Your task to perform on an android device: Open the calendar and show me this week's events? Image 0: 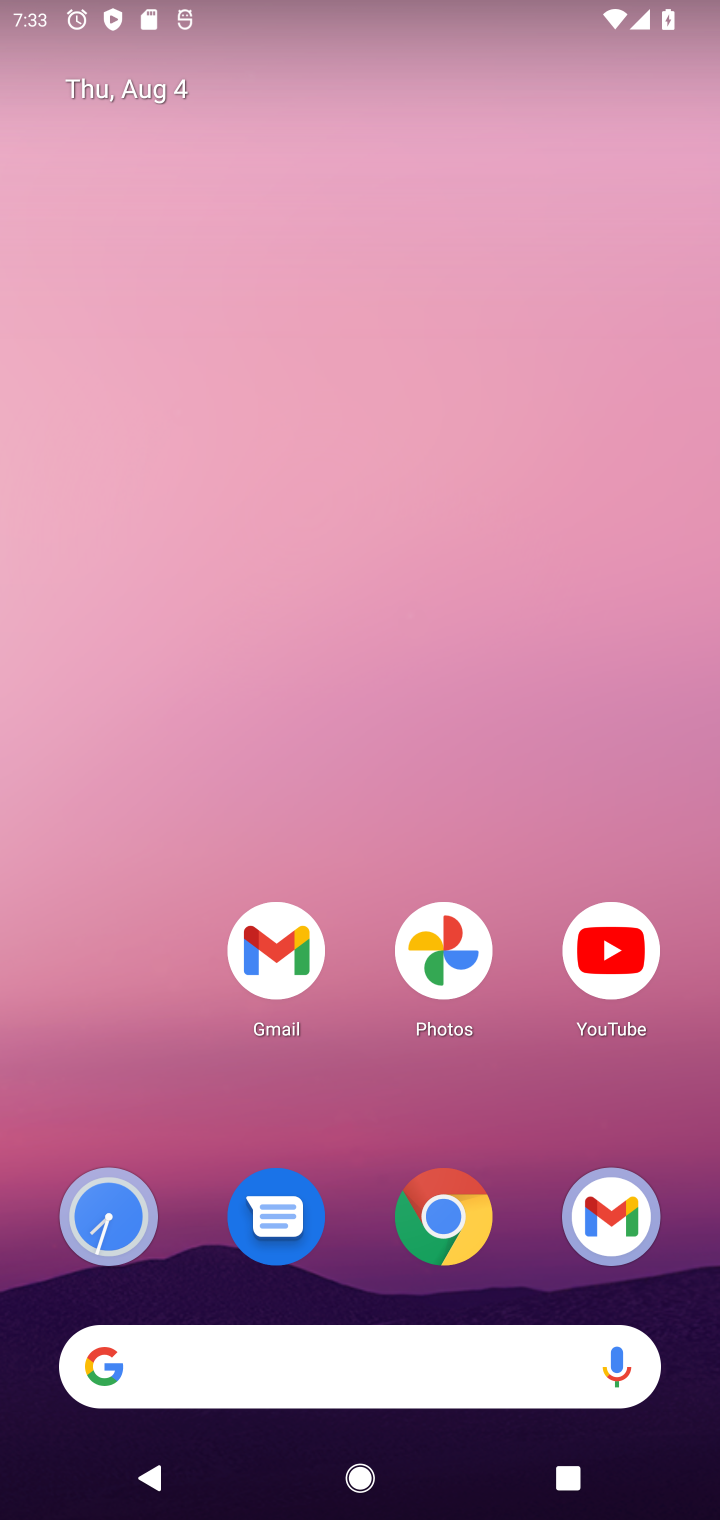
Step 0: drag from (547, 1082) to (505, 262)
Your task to perform on an android device: Open the calendar and show me this week's events? Image 1: 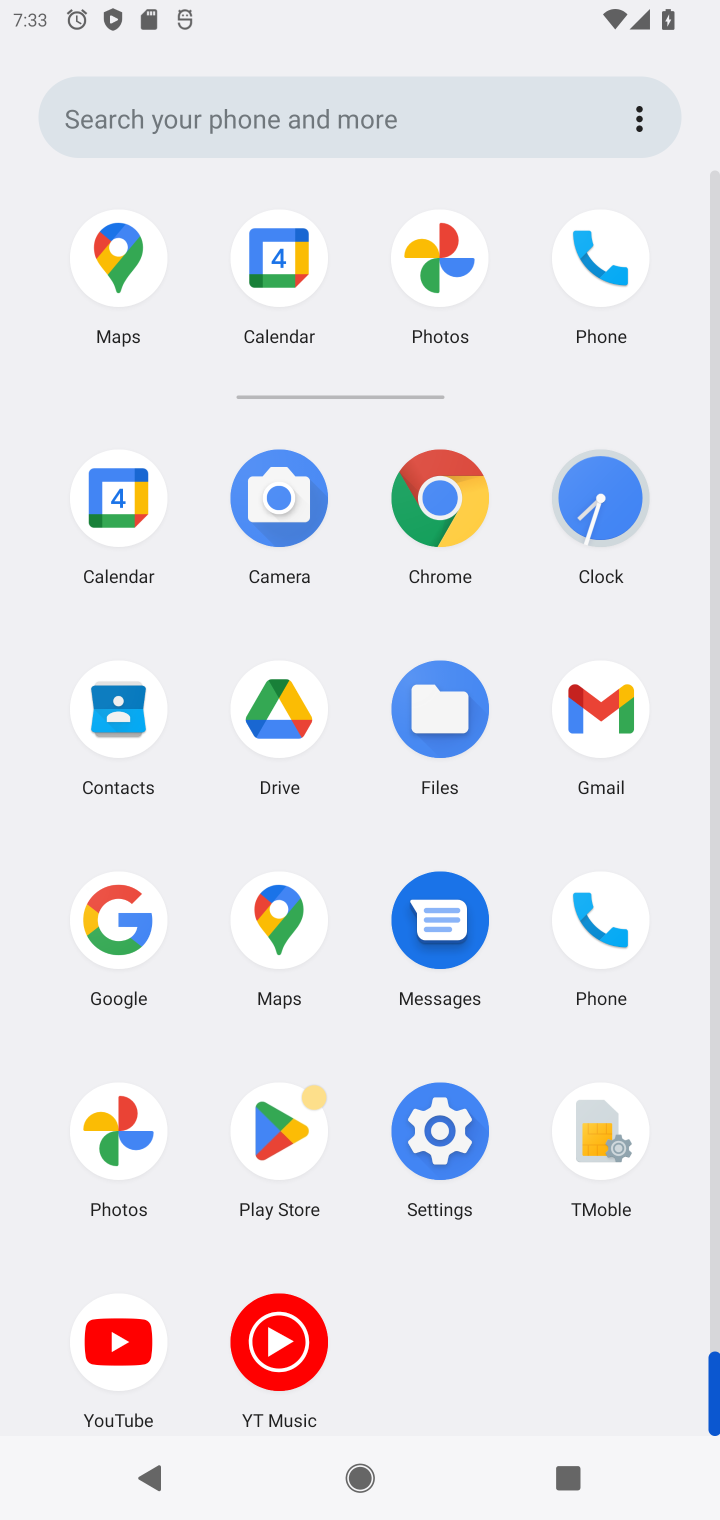
Step 1: click (130, 492)
Your task to perform on an android device: Open the calendar and show me this week's events? Image 2: 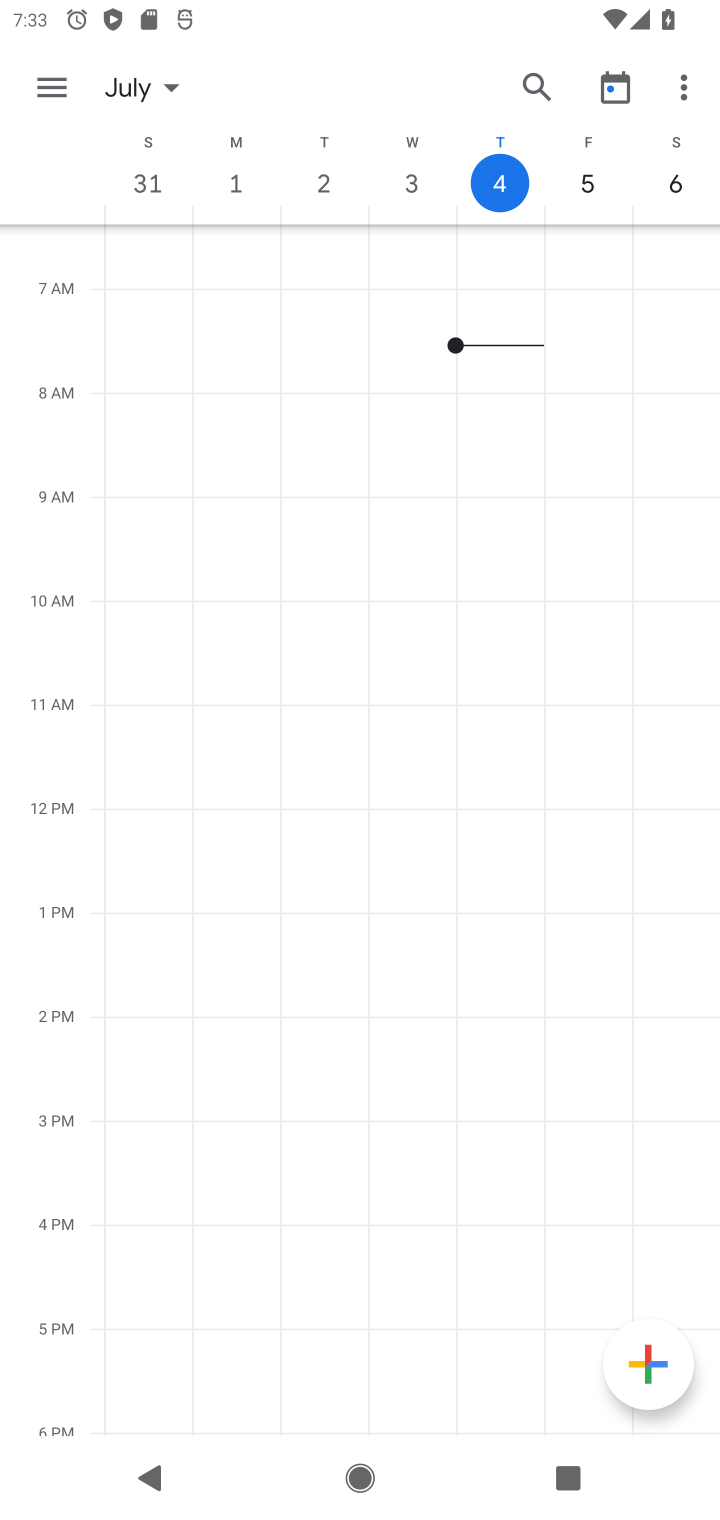
Step 2: click (59, 89)
Your task to perform on an android device: Open the calendar and show me this week's events? Image 3: 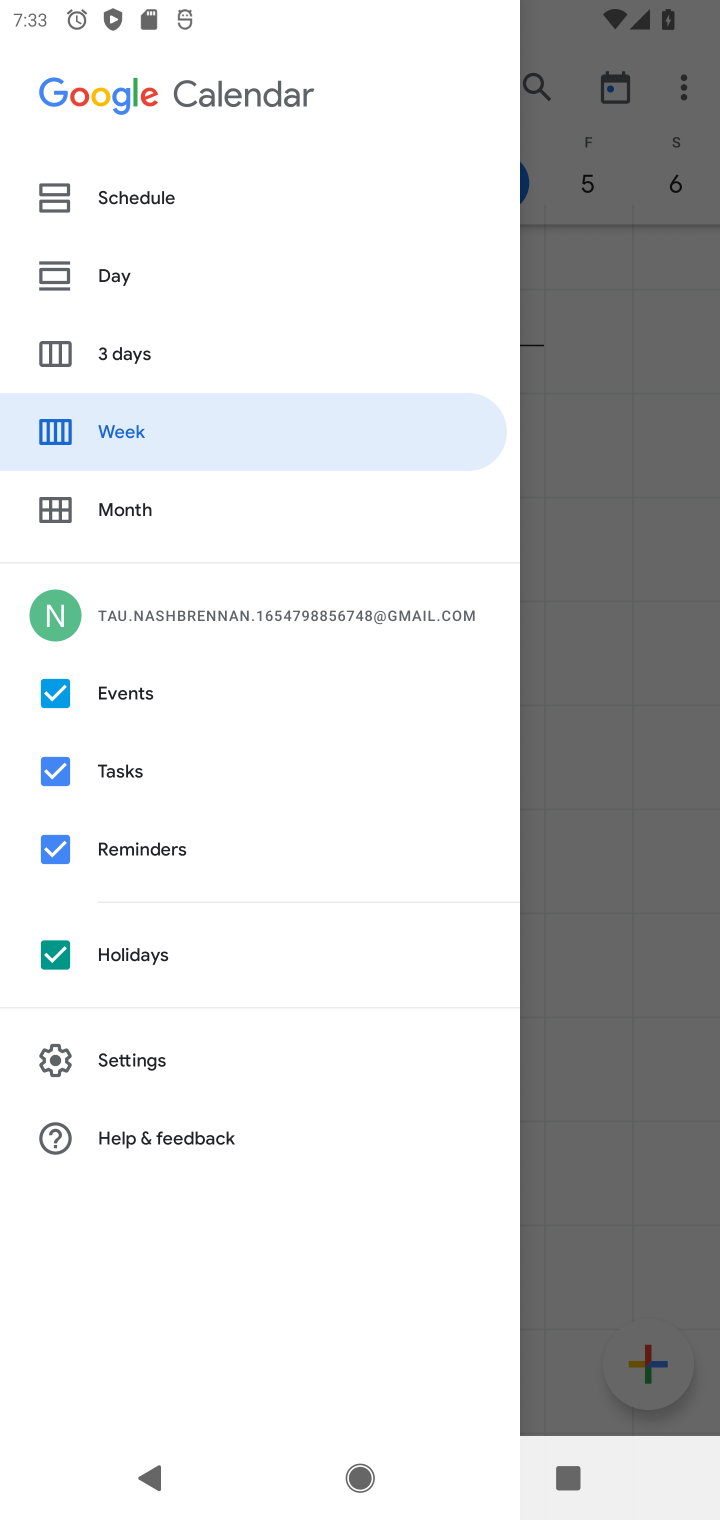
Step 3: click (552, 422)
Your task to perform on an android device: Open the calendar and show me this week's events? Image 4: 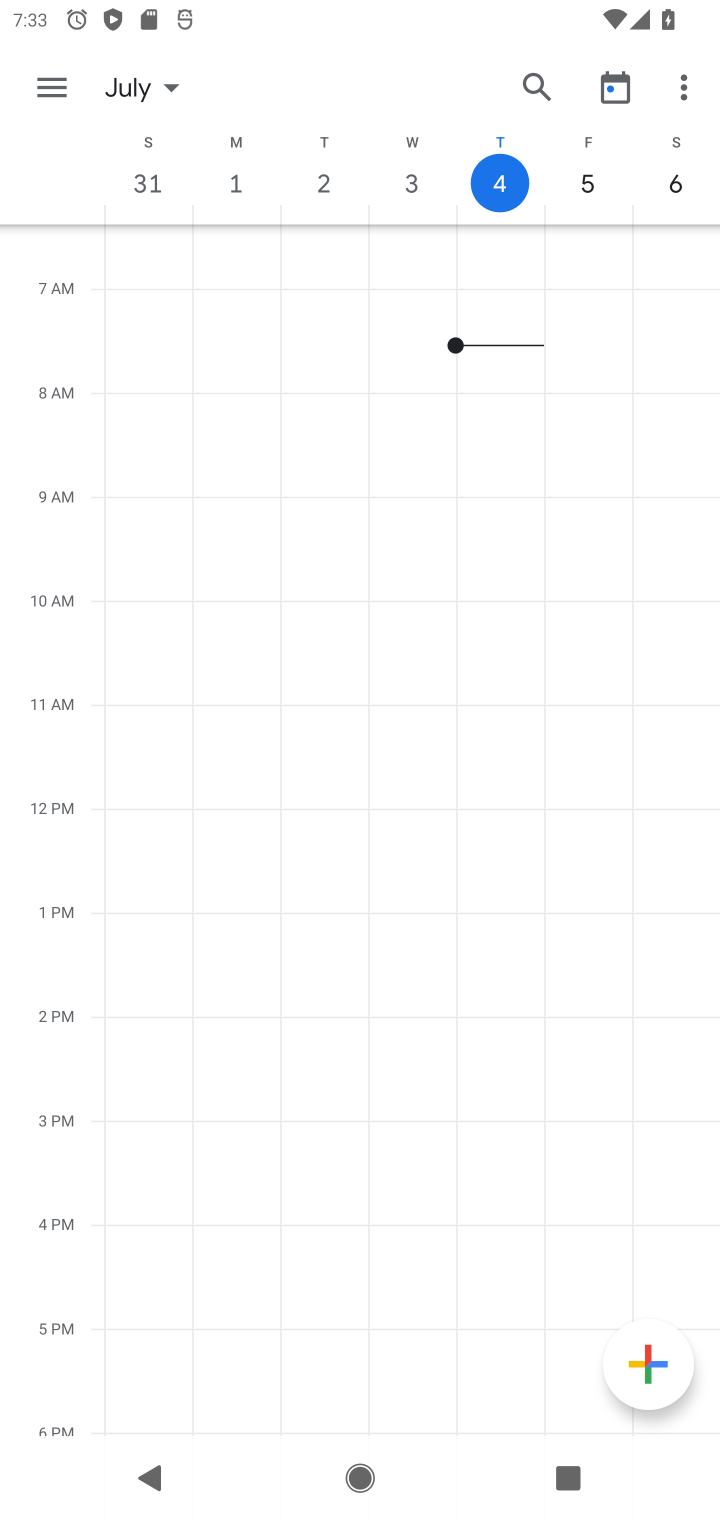
Step 4: task complete